Your task to perform on an android device: turn on priority inbox in the gmail app Image 0: 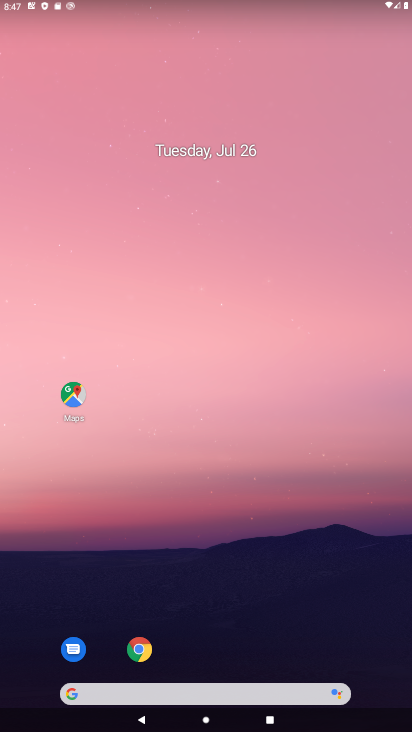
Step 0: drag from (227, 422) to (223, 182)
Your task to perform on an android device: turn on priority inbox in the gmail app Image 1: 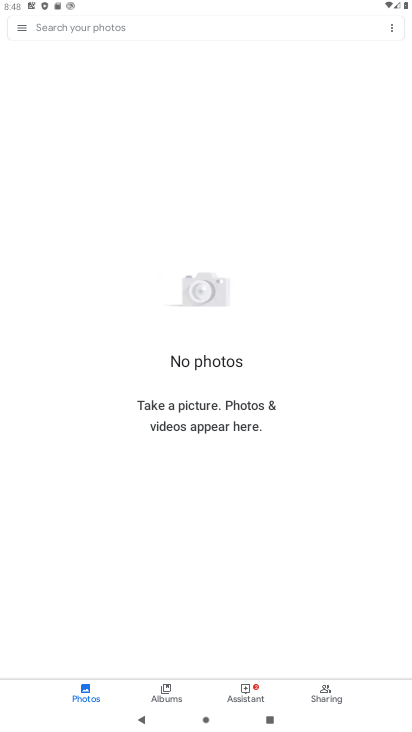
Step 1: press home button
Your task to perform on an android device: turn on priority inbox in the gmail app Image 2: 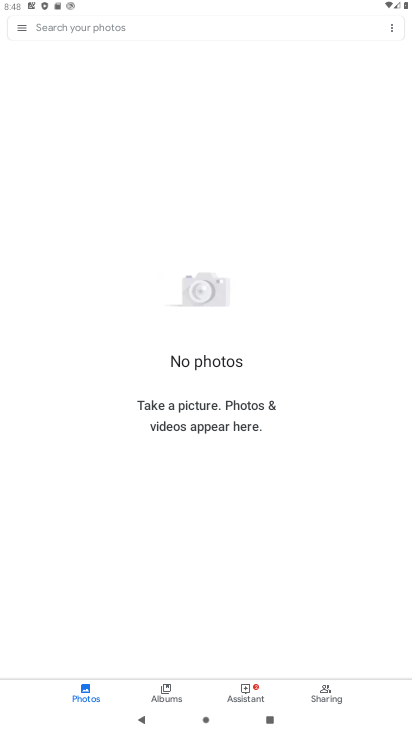
Step 2: click (194, 75)
Your task to perform on an android device: turn on priority inbox in the gmail app Image 3: 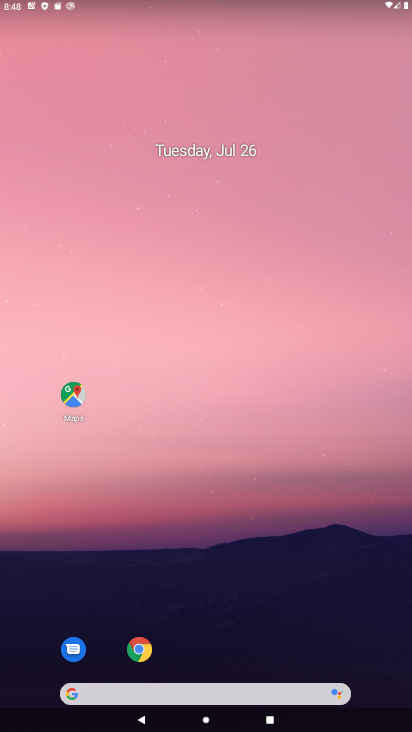
Step 3: drag from (203, 528) to (183, 206)
Your task to perform on an android device: turn on priority inbox in the gmail app Image 4: 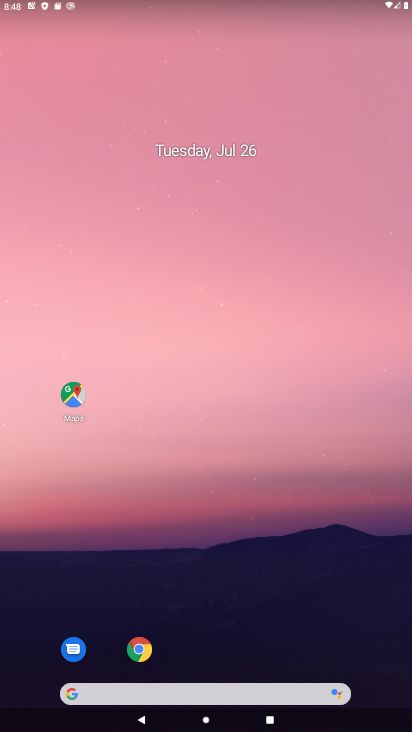
Step 4: drag from (194, 649) to (308, 176)
Your task to perform on an android device: turn on priority inbox in the gmail app Image 5: 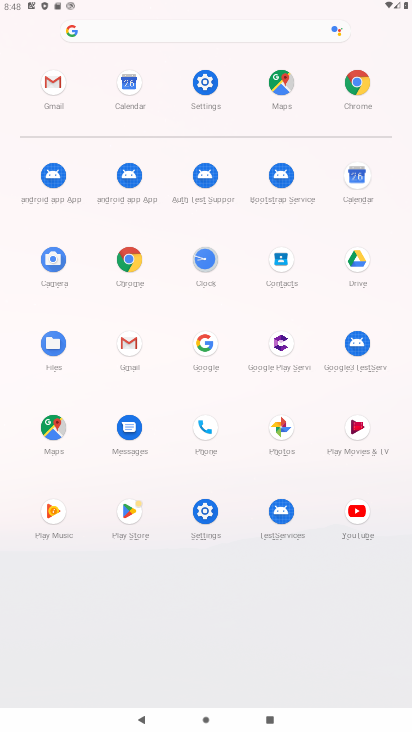
Step 5: click (131, 345)
Your task to perform on an android device: turn on priority inbox in the gmail app Image 6: 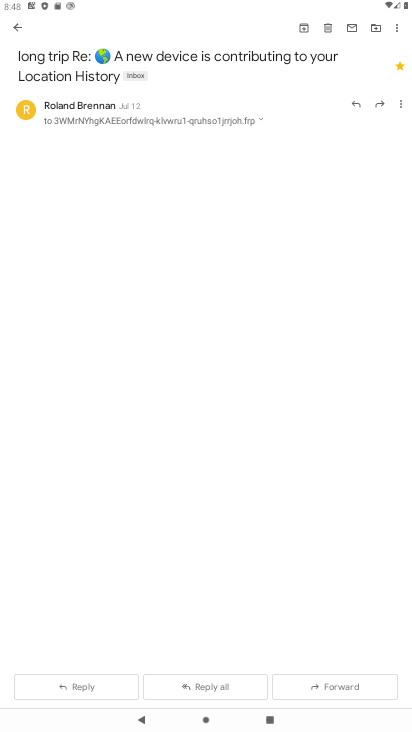
Step 6: click (16, 34)
Your task to perform on an android device: turn on priority inbox in the gmail app Image 7: 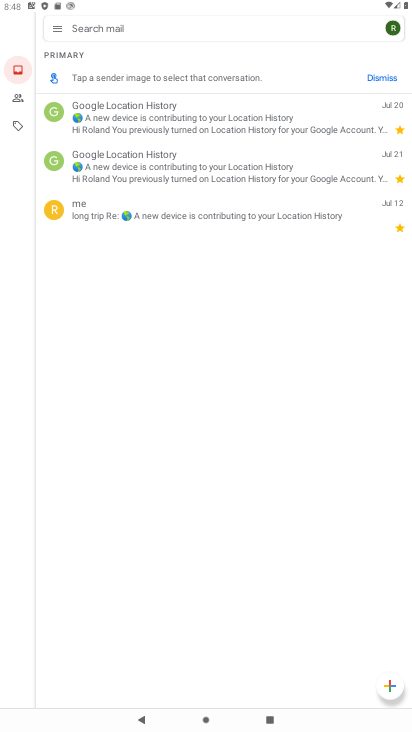
Step 7: click (58, 35)
Your task to perform on an android device: turn on priority inbox in the gmail app Image 8: 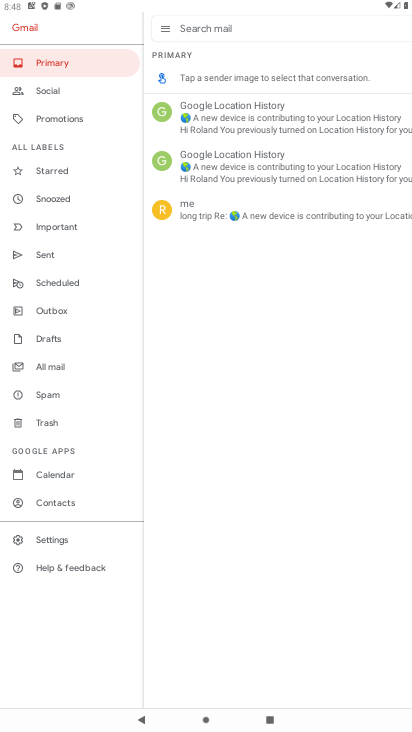
Step 8: click (56, 531)
Your task to perform on an android device: turn on priority inbox in the gmail app Image 9: 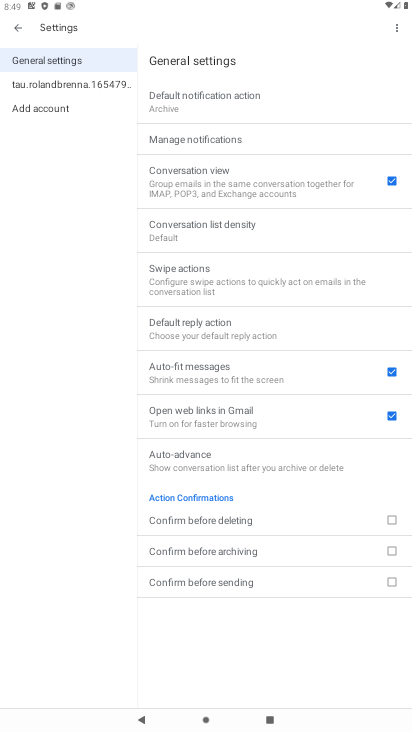
Step 9: click (65, 83)
Your task to perform on an android device: turn on priority inbox in the gmail app Image 10: 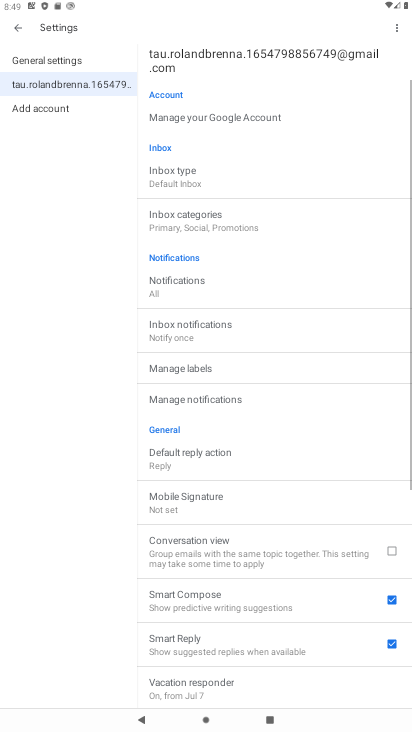
Step 10: click (195, 186)
Your task to perform on an android device: turn on priority inbox in the gmail app Image 11: 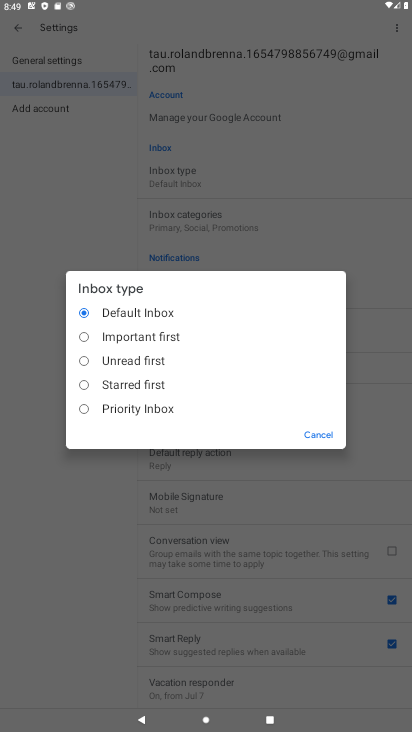
Step 11: click (88, 404)
Your task to perform on an android device: turn on priority inbox in the gmail app Image 12: 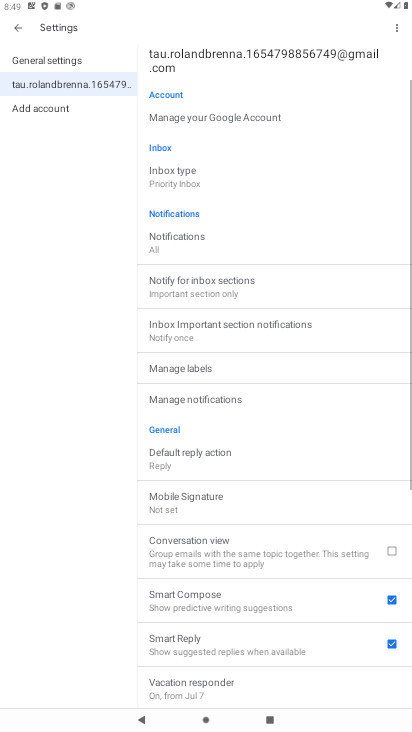
Step 12: task complete